Your task to perform on an android device: turn on sleep mode Image 0: 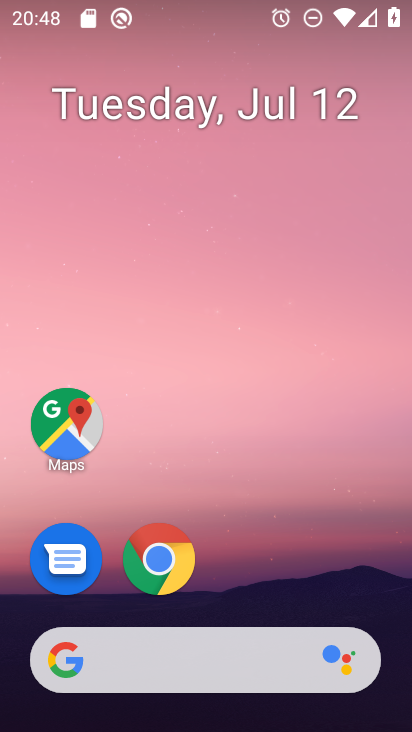
Step 0: drag from (347, 579) to (351, 107)
Your task to perform on an android device: turn on sleep mode Image 1: 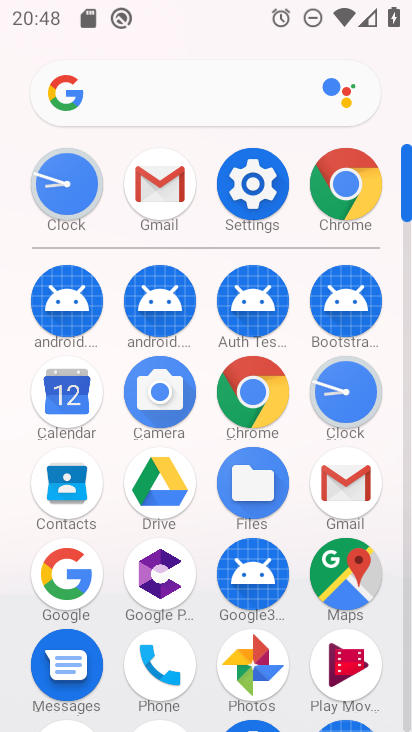
Step 1: click (270, 200)
Your task to perform on an android device: turn on sleep mode Image 2: 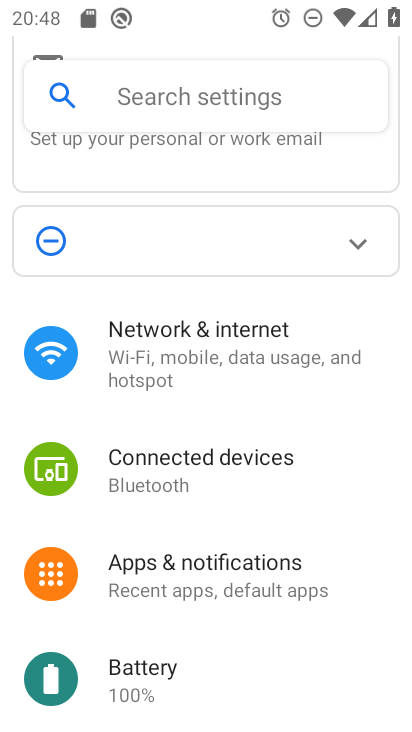
Step 2: drag from (376, 527) to (378, 383)
Your task to perform on an android device: turn on sleep mode Image 3: 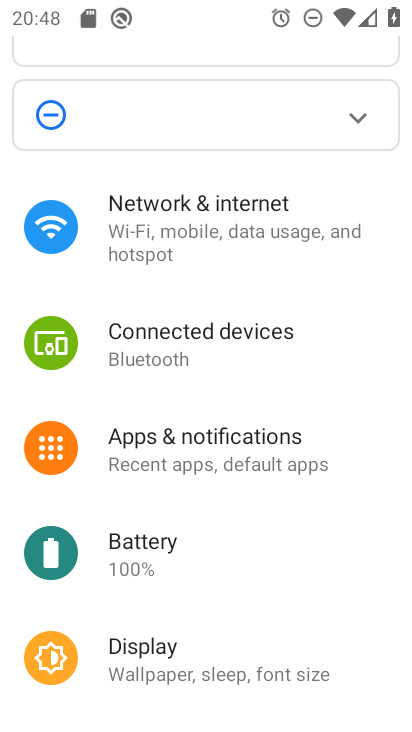
Step 3: drag from (366, 528) to (352, 302)
Your task to perform on an android device: turn on sleep mode Image 4: 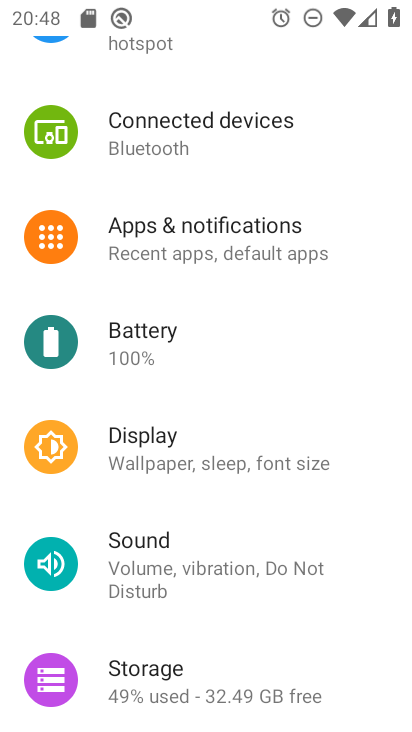
Step 4: drag from (353, 552) to (361, 395)
Your task to perform on an android device: turn on sleep mode Image 5: 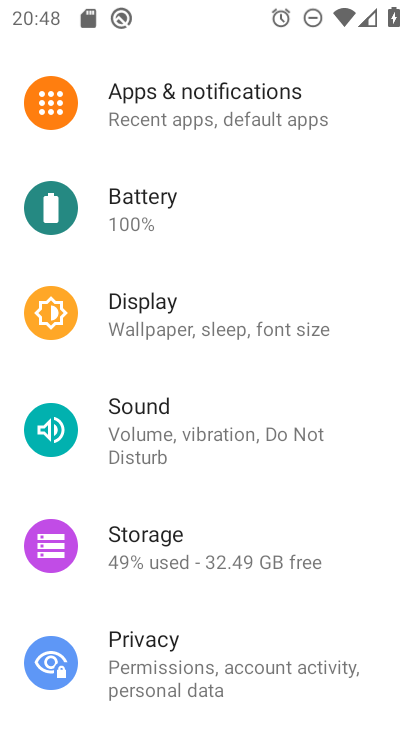
Step 5: drag from (351, 520) to (355, 367)
Your task to perform on an android device: turn on sleep mode Image 6: 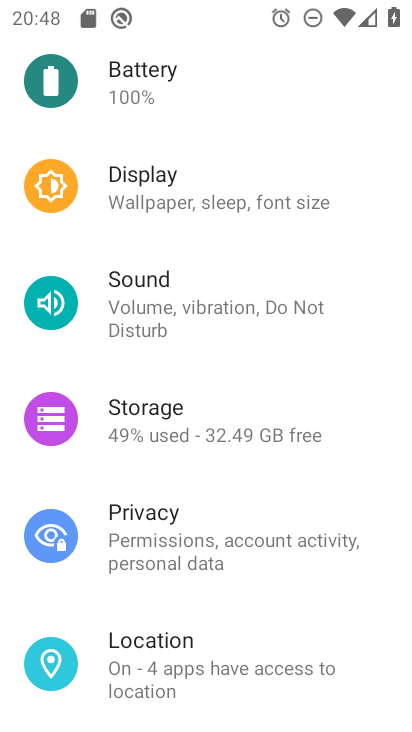
Step 6: click (330, 205)
Your task to perform on an android device: turn on sleep mode Image 7: 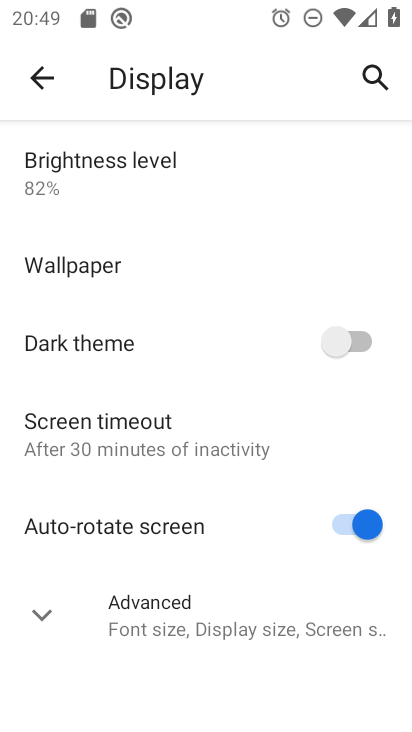
Step 7: click (173, 618)
Your task to perform on an android device: turn on sleep mode Image 8: 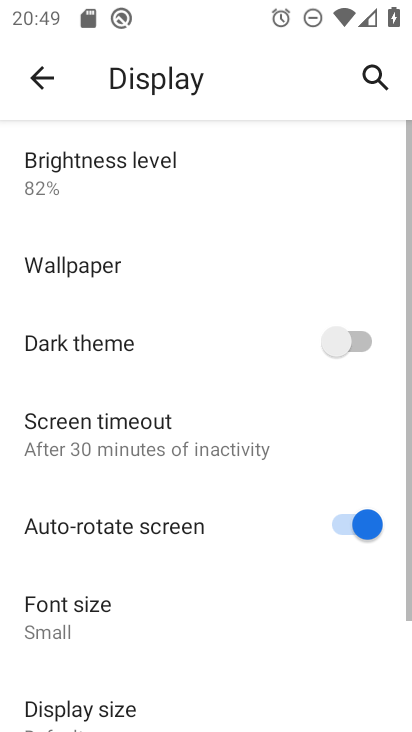
Step 8: task complete